Your task to perform on an android device: toggle wifi Image 0: 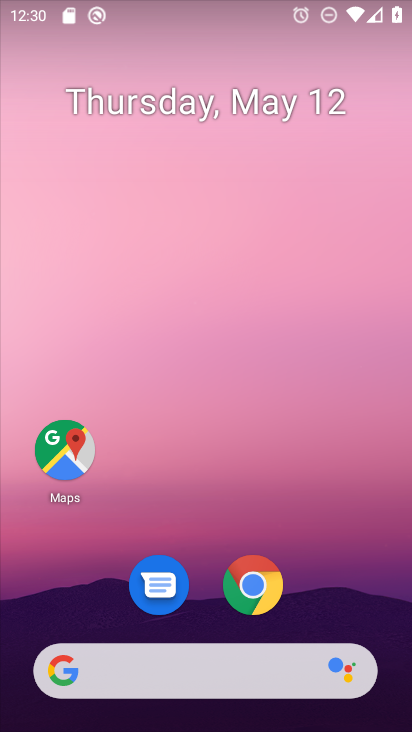
Step 0: drag from (330, 539) to (313, 73)
Your task to perform on an android device: toggle wifi Image 1: 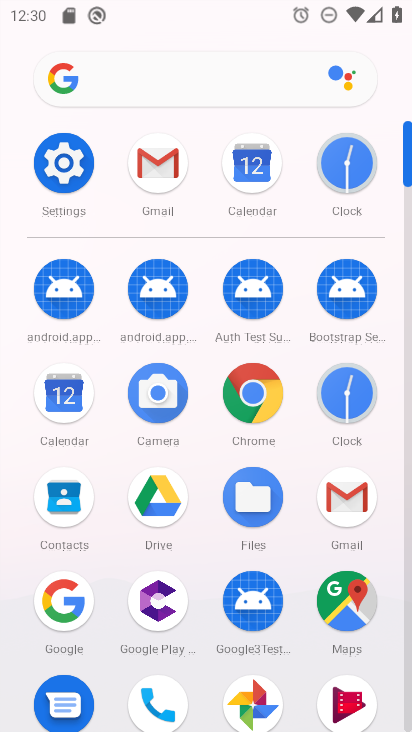
Step 1: click (71, 157)
Your task to perform on an android device: toggle wifi Image 2: 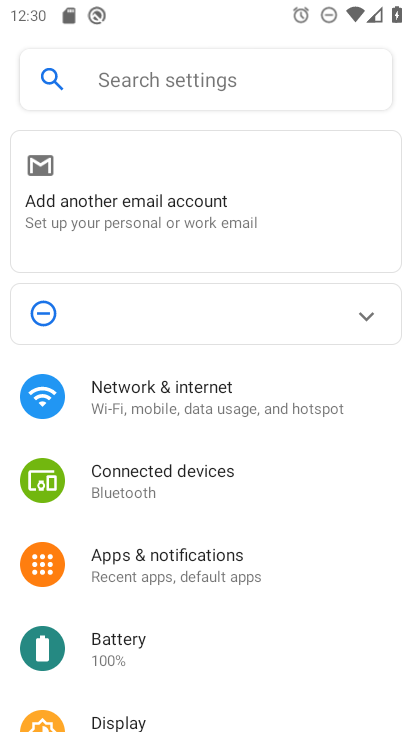
Step 2: click (206, 375)
Your task to perform on an android device: toggle wifi Image 3: 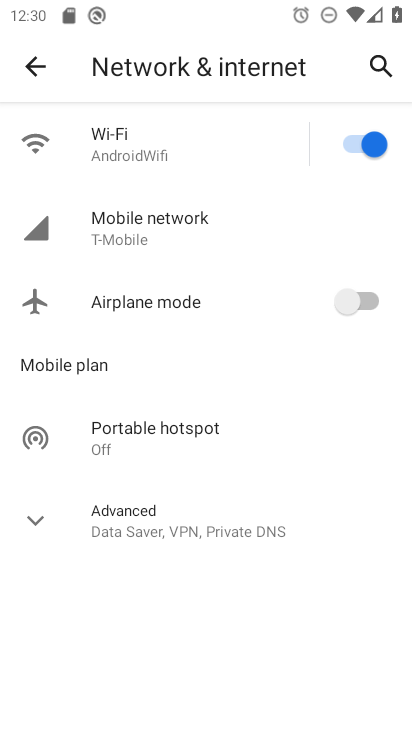
Step 3: click (356, 127)
Your task to perform on an android device: toggle wifi Image 4: 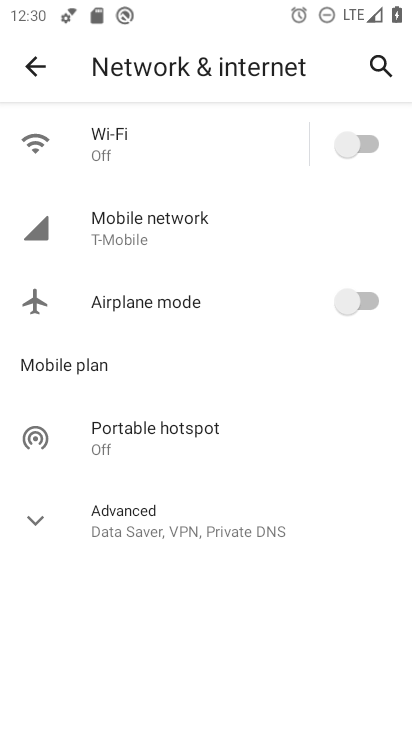
Step 4: task complete